Your task to perform on an android device: turn on translation in the chrome app Image 0: 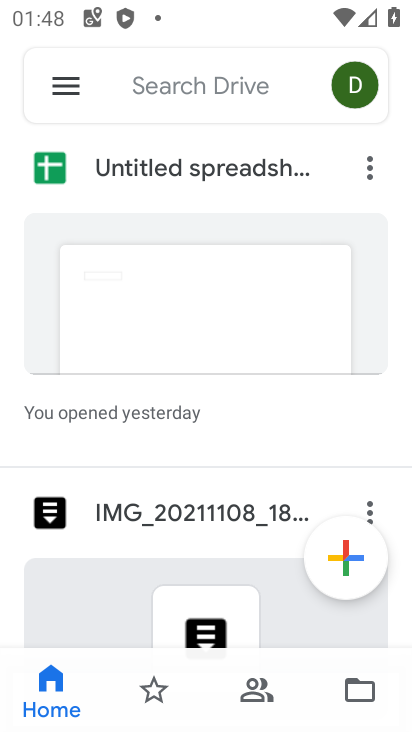
Step 0: press home button
Your task to perform on an android device: turn on translation in the chrome app Image 1: 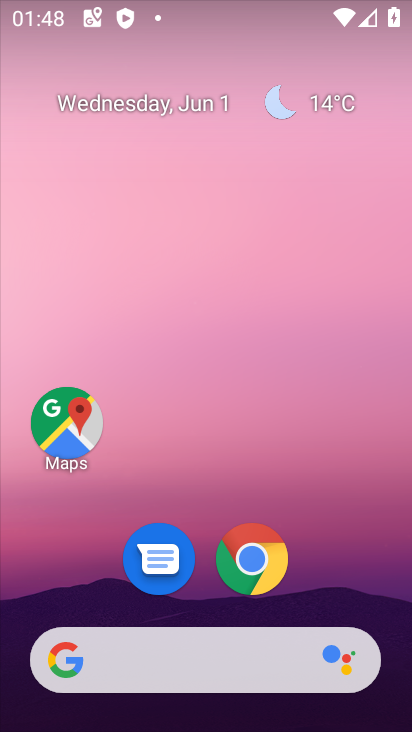
Step 1: click (246, 566)
Your task to perform on an android device: turn on translation in the chrome app Image 2: 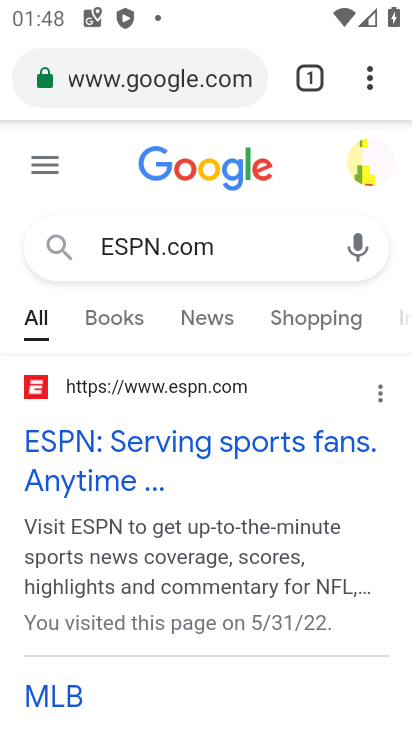
Step 2: click (374, 79)
Your task to perform on an android device: turn on translation in the chrome app Image 3: 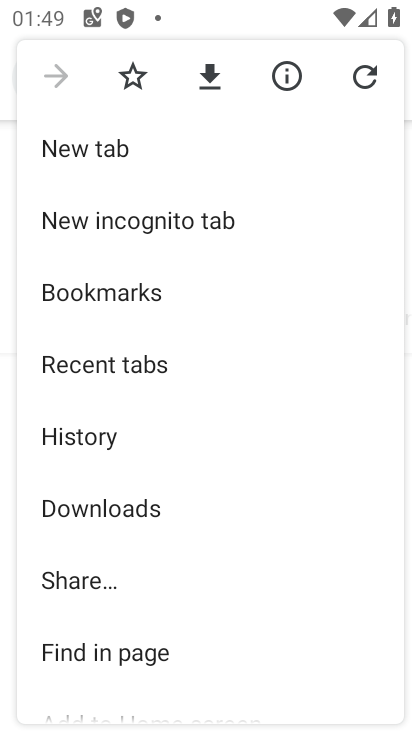
Step 3: drag from (231, 663) to (201, 311)
Your task to perform on an android device: turn on translation in the chrome app Image 4: 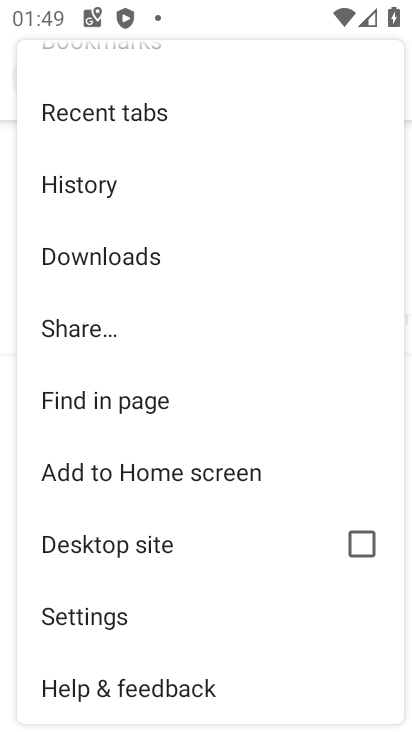
Step 4: click (92, 611)
Your task to perform on an android device: turn on translation in the chrome app Image 5: 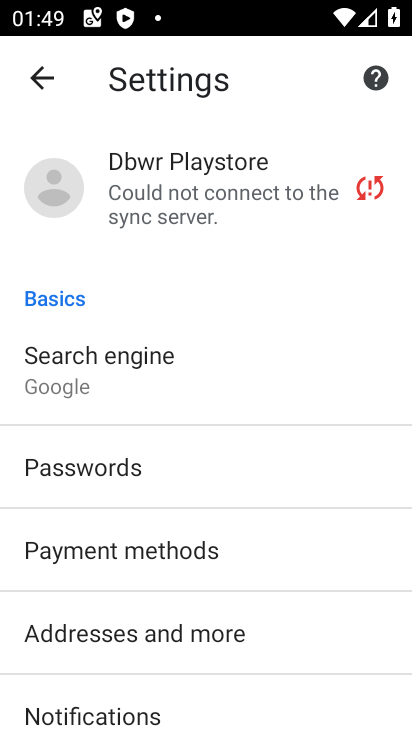
Step 5: drag from (251, 679) to (236, 409)
Your task to perform on an android device: turn on translation in the chrome app Image 6: 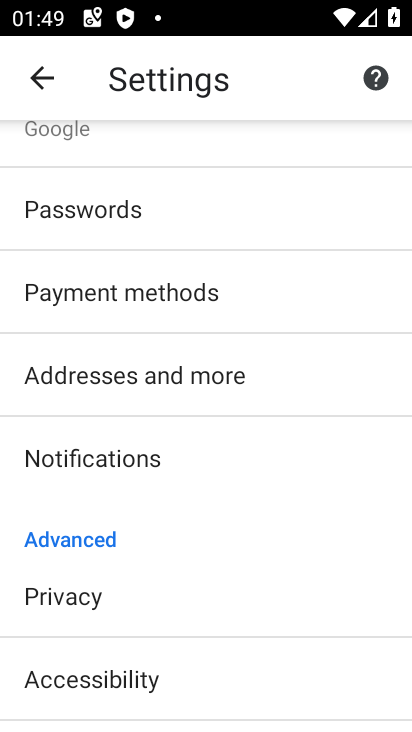
Step 6: drag from (223, 702) to (210, 414)
Your task to perform on an android device: turn on translation in the chrome app Image 7: 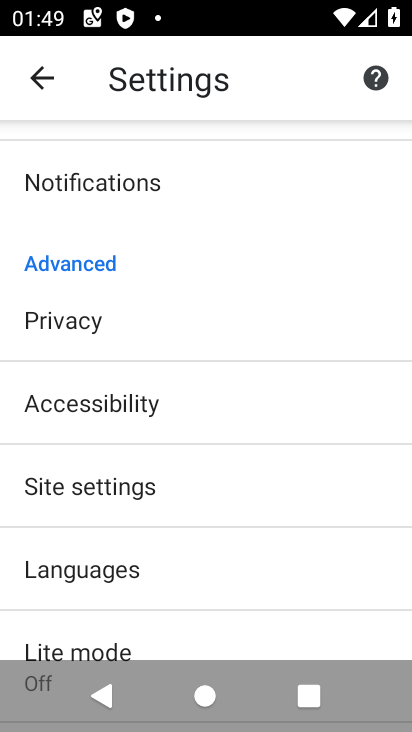
Step 7: click (123, 571)
Your task to perform on an android device: turn on translation in the chrome app Image 8: 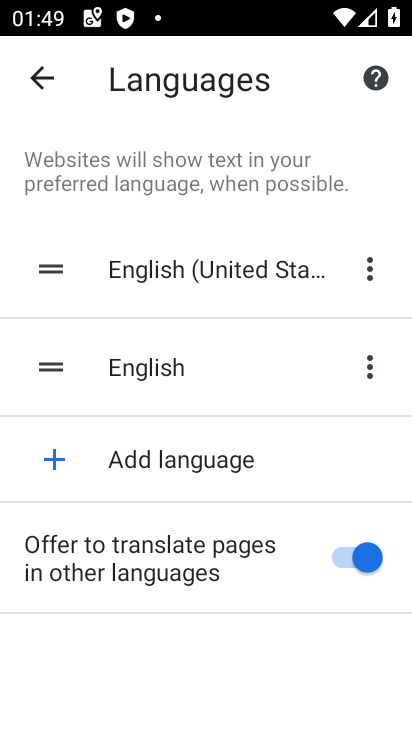
Step 8: click (346, 558)
Your task to perform on an android device: turn on translation in the chrome app Image 9: 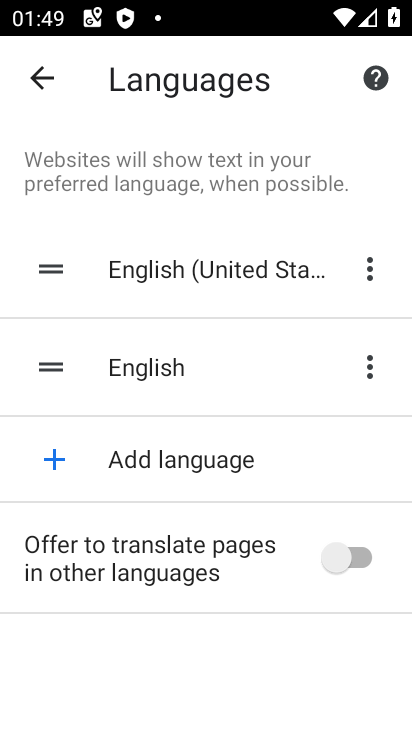
Step 9: click (373, 558)
Your task to perform on an android device: turn on translation in the chrome app Image 10: 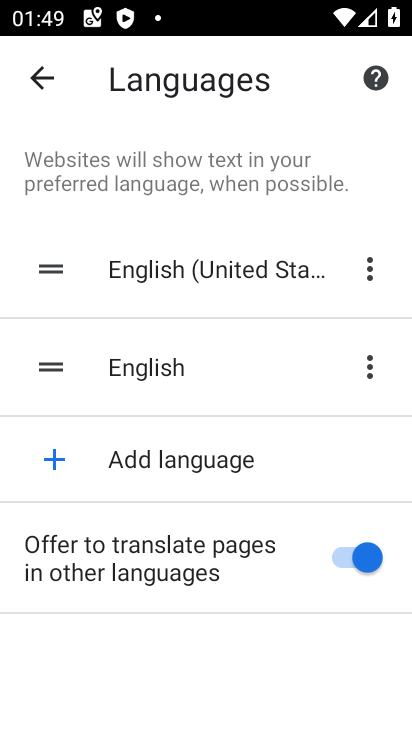
Step 10: task complete